Your task to perform on an android device: Open my contact list Image 0: 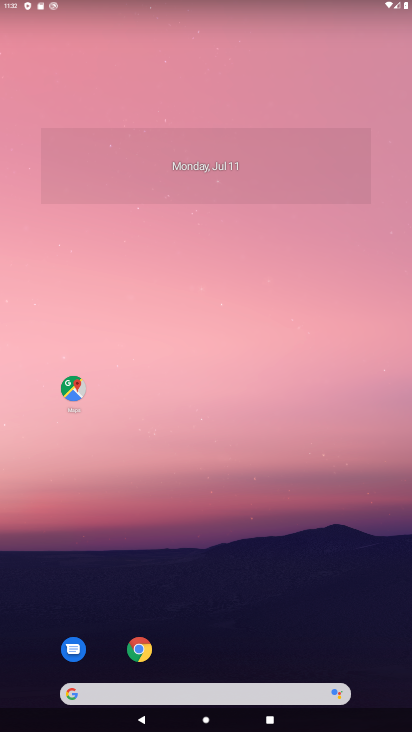
Step 0: drag from (252, 616) to (342, 22)
Your task to perform on an android device: Open my contact list Image 1: 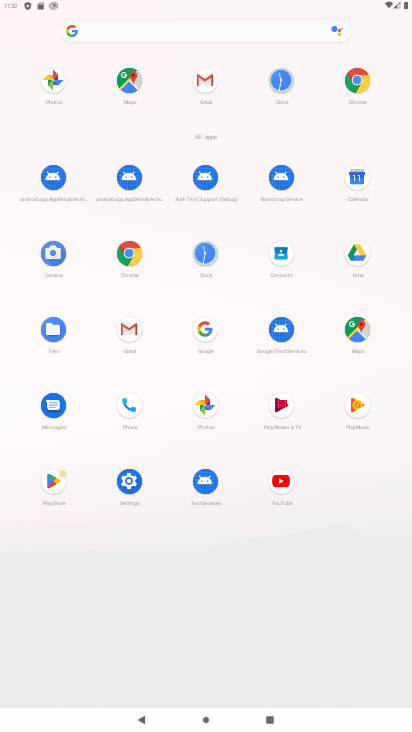
Step 1: click (134, 399)
Your task to perform on an android device: Open my contact list Image 2: 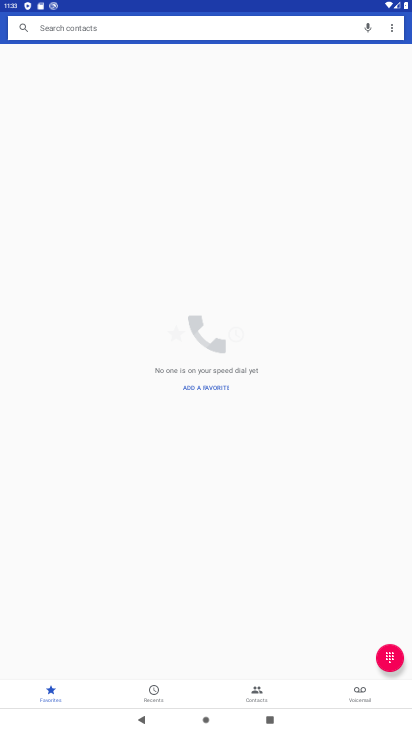
Step 2: drag from (270, 608) to (369, 700)
Your task to perform on an android device: Open my contact list Image 3: 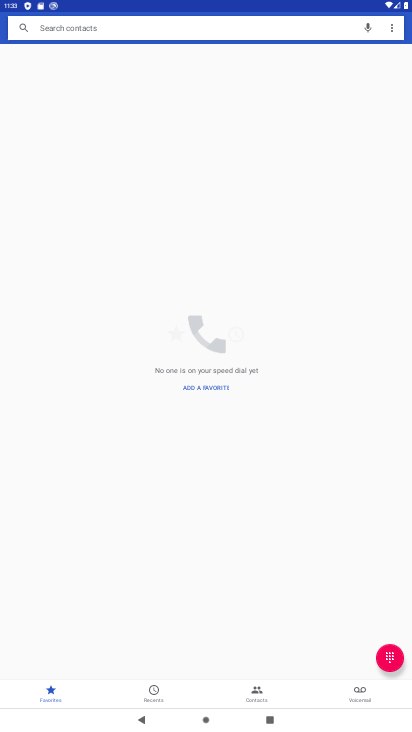
Step 3: drag from (253, 661) to (396, 710)
Your task to perform on an android device: Open my contact list Image 4: 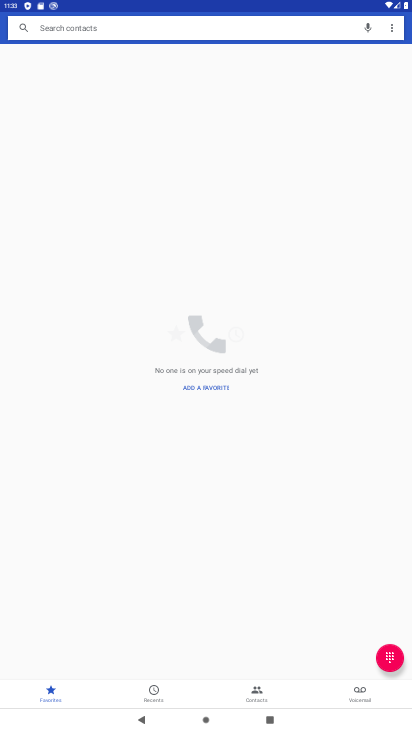
Step 4: drag from (361, 713) to (155, 679)
Your task to perform on an android device: Open my contact list Image 5: 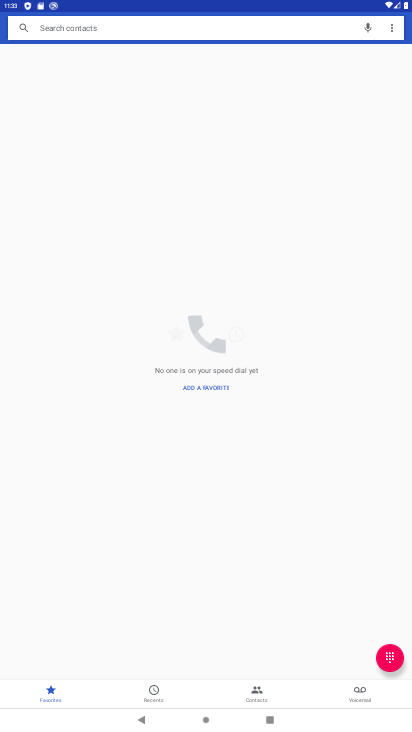
Step 5: click (265, 692)
Your task to perform on an android device: Open my contact list Image 6: 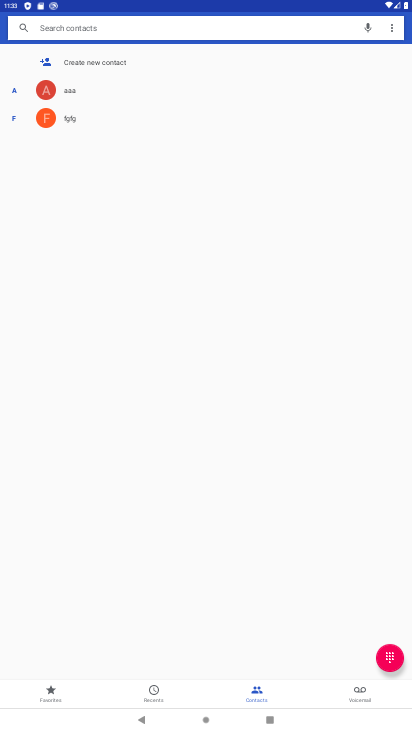
Step 6: task complete